Your task to perform on an android device: Set the phone to "Do not disturb". Image 0: 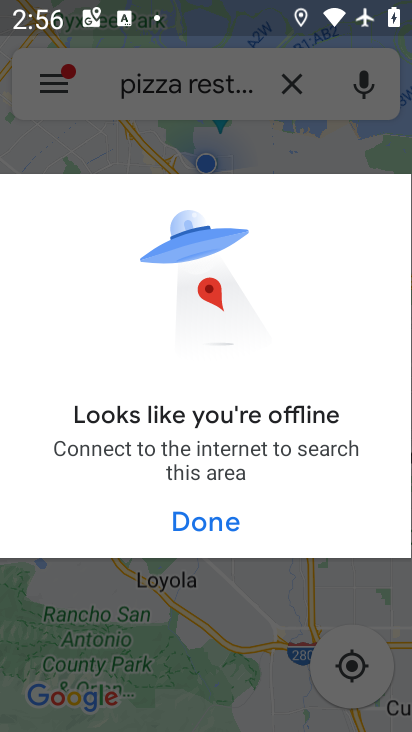
Step 0: press home button
Your task to perform on an android device: Set the phone to "Do not disturb". Image 1: 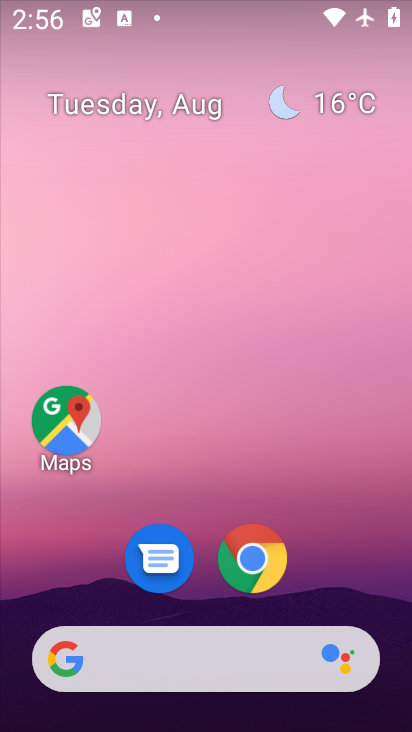
Step 1: drag from (204, 503) to (216, 132)
Your task to perform on an android device: Set the phone to "Do not disturb". Image 2: 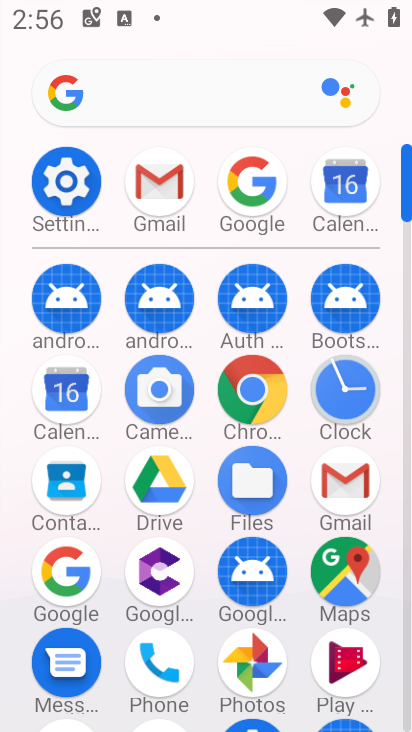
Step 2: click (80, 180)
Your task to perform on an android device: Set the phone to "Do not disturb". Image 3: 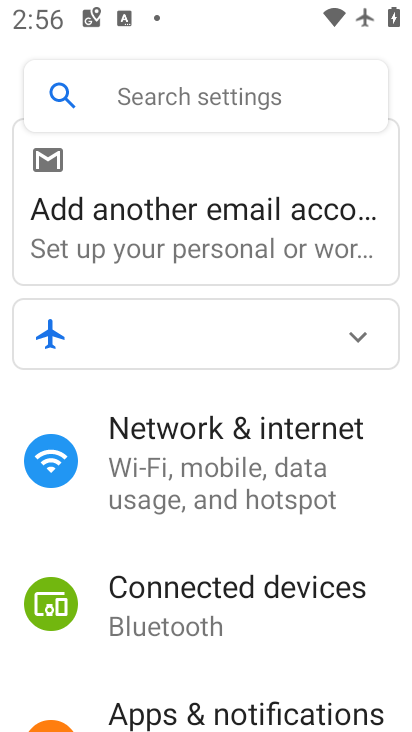
Step 3: drag from (207, 639) to (256, 247)
Your task to perform on an android device: Set the phone to "Do not disturb". Image 4: 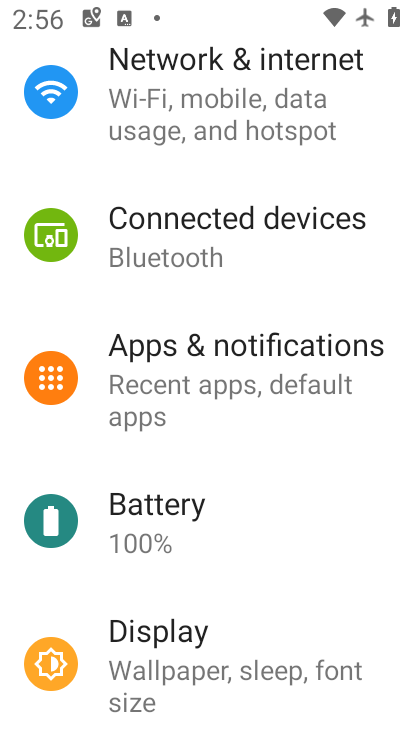
Step 4: drag from (296, 638) to (296, 278)
Your task to perform on an android device: Set the phone to "Do not disturb". Image 5: 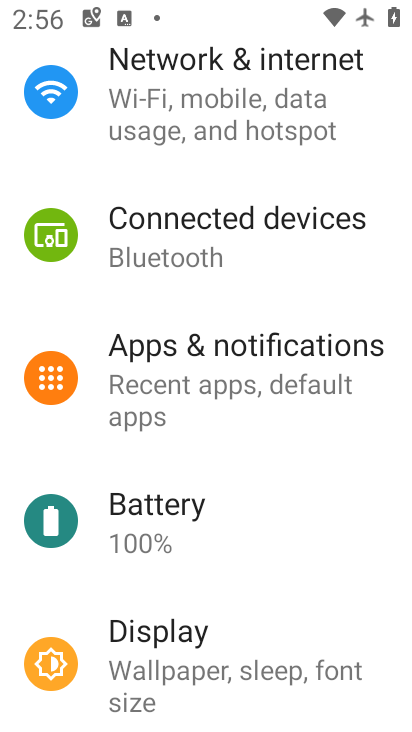
Step 5: drag from (270, 552) to (294, 286)
Your task to perform on an android device: Set the phone to "Do not disturb". Image 6: 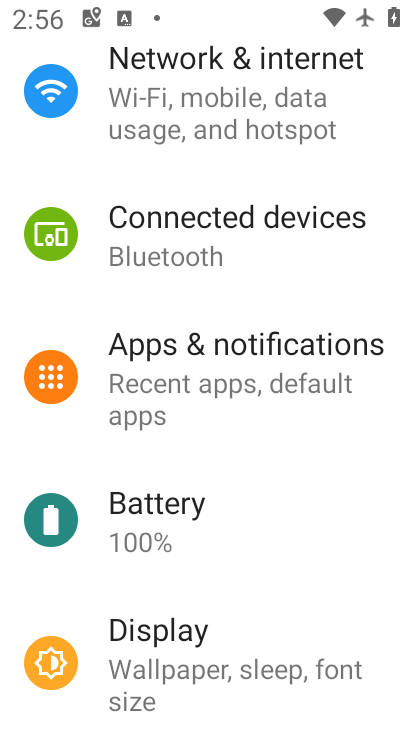
Step 6: drag from (245, 627) to (224, 294)
Your task to perform on an android device: Set the phone to "Do not disturb". Image 7: 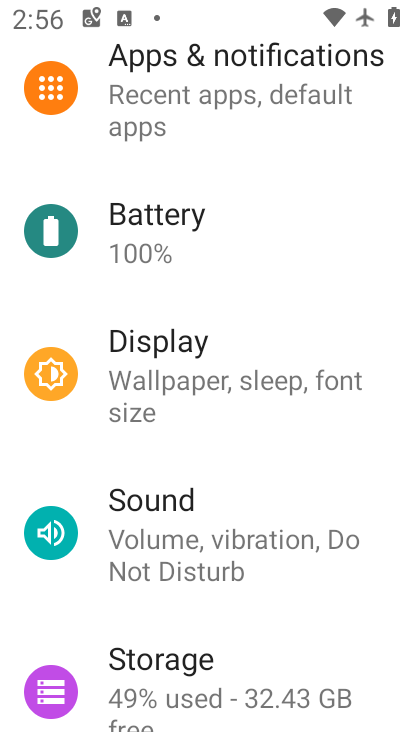
Step 7: click (180, 529)
Your task to perform on an android device: Set the phone to "Do not disturb". Image 8: 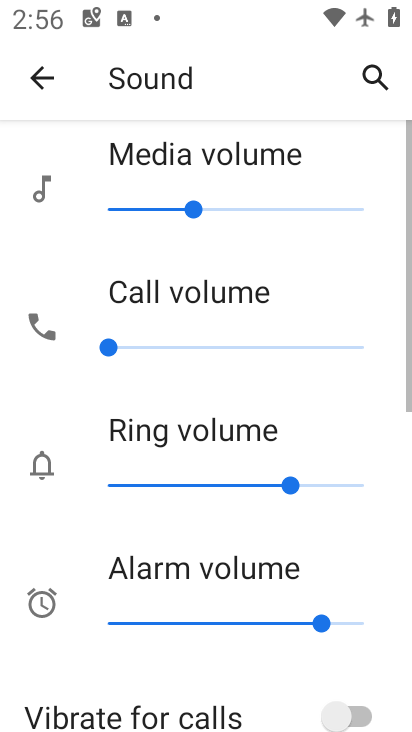
Step 8: drag from (197, 644) to (242, 324)
Your task to perform on an android device: Set the phone to "Do not disturb". Image 9: 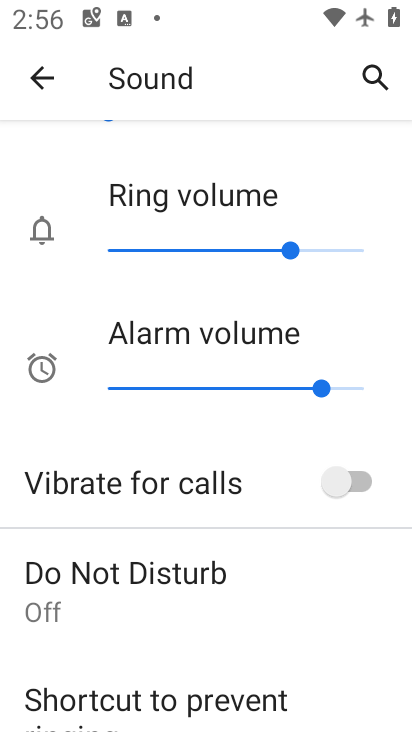
Step 9: click (197, 588)
Your task to perform on an android device: Set the phone to "Do not disturb". Image 10: 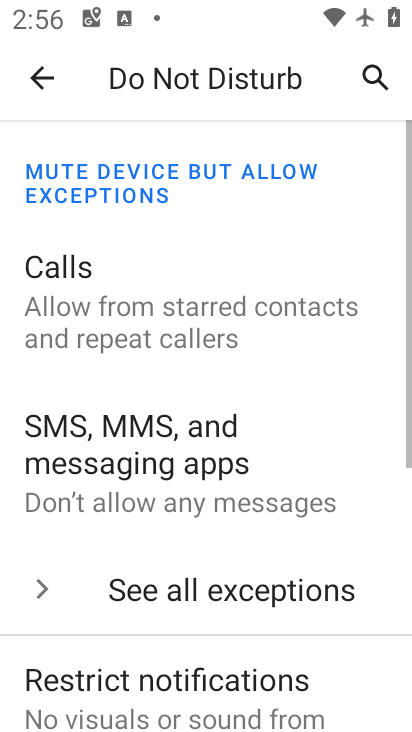
Step 10: drag from (183, 574) to (216, 240)
Your task to perform on an android device: Set the phone to "Do not disturb". Image 11: 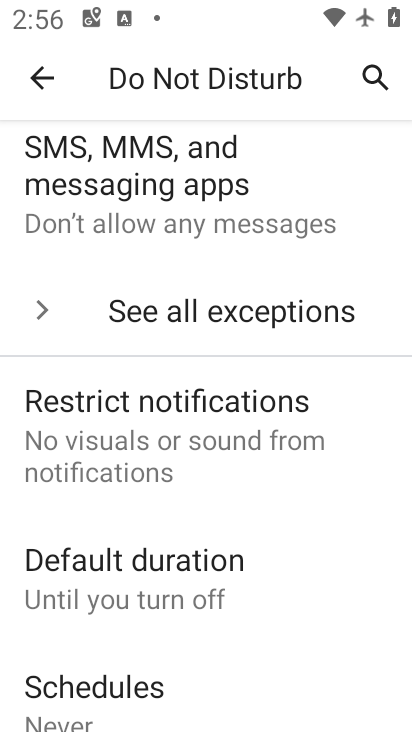
Step 11: drag from (217, 584) to (215, 257)
Your task to perform on an android device: Set the phone to "Do not disturb". Image 12: 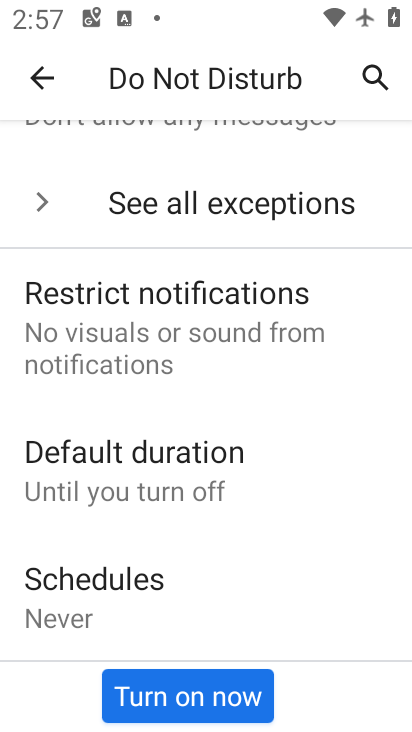
Step 12: click (186, 684)
Your task to perform on an android device: Set the phone to "Do not disturb". Image 13: 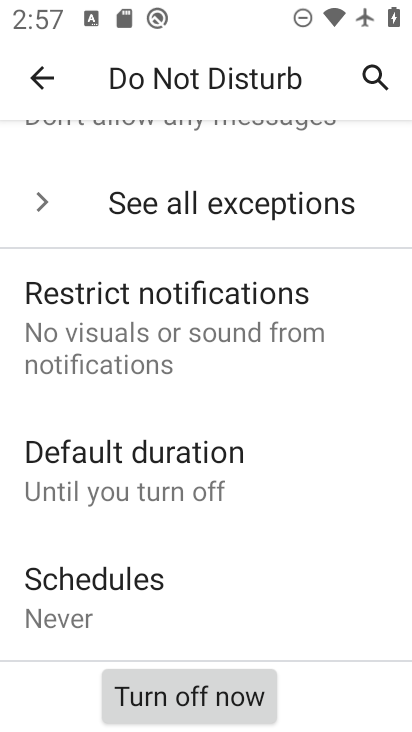
Step 13: task complete